Your task to perform on an android device: Is it going to rain tomorrow? Image 0: 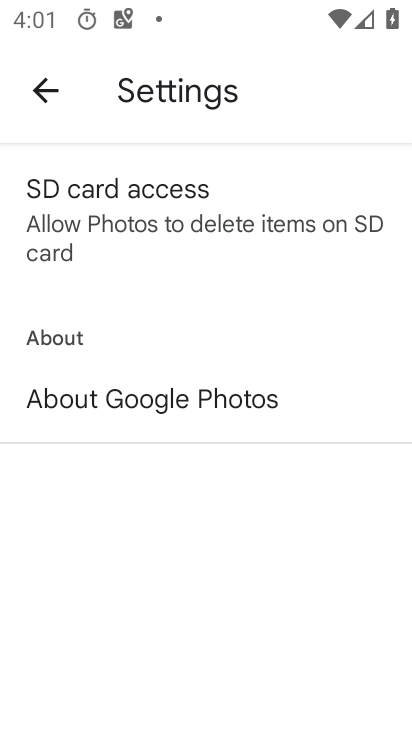
Step 0: press home button
Your task to perform on an android device: Is it going to rain tomorrow? Image 1: 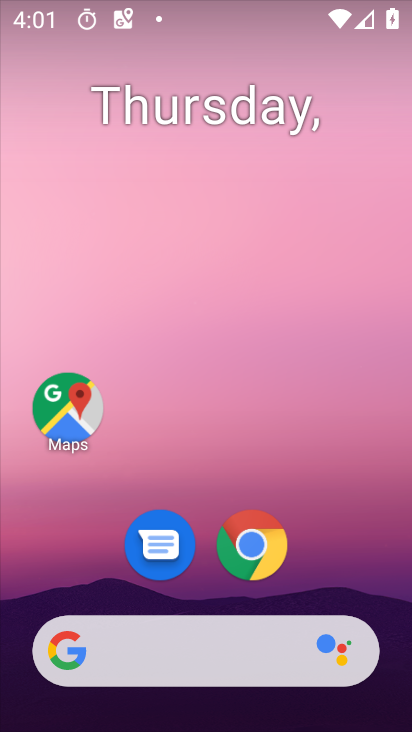
Step 1: drag from (233, 724) to (219, 211)
Your task to perform on an android device: Is it going to rain tomorrow? Image 2: 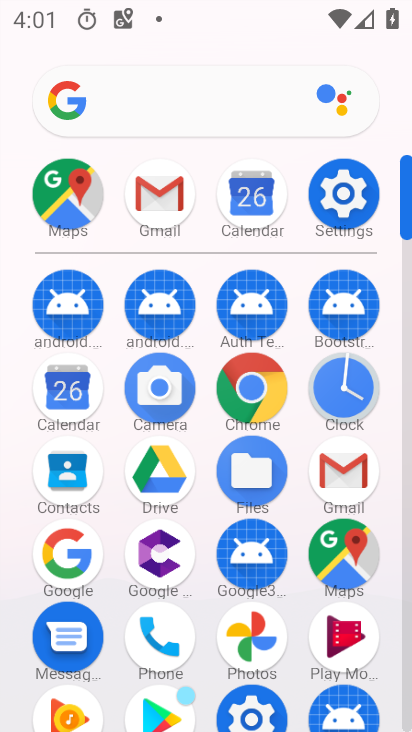
Step 2: click (65, 559)
Your task to perform on an android device: Is it going to rain tomorrow? Image 3: 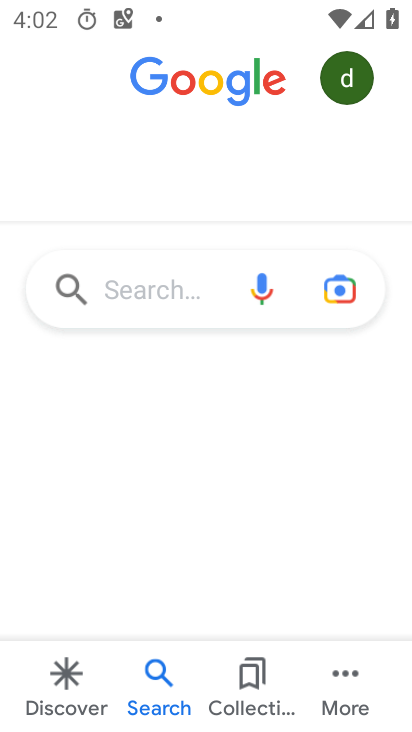
Step 3: click (134, 282)
Your task to perform on an android device: Is it going to rain tomorrow? Image 4: 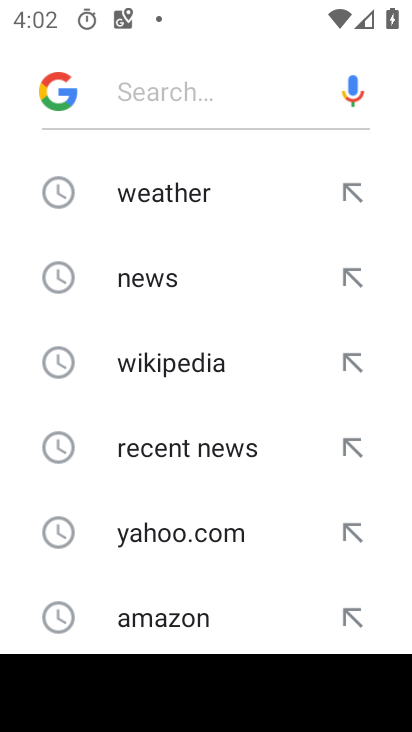
Step 4: click (156, 191)
Your task to perform on an android device: Is it going to rain tomorrow? Image 5: 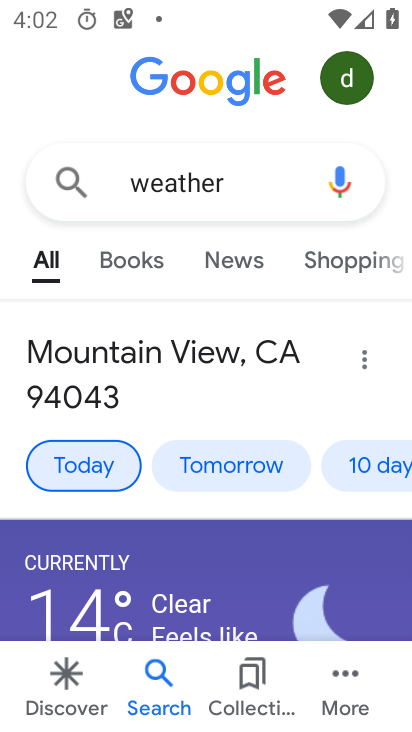
Step 5: click (209, 459)
Your task to perform on an android device: Is it going to rain tomorrow? Image 6: 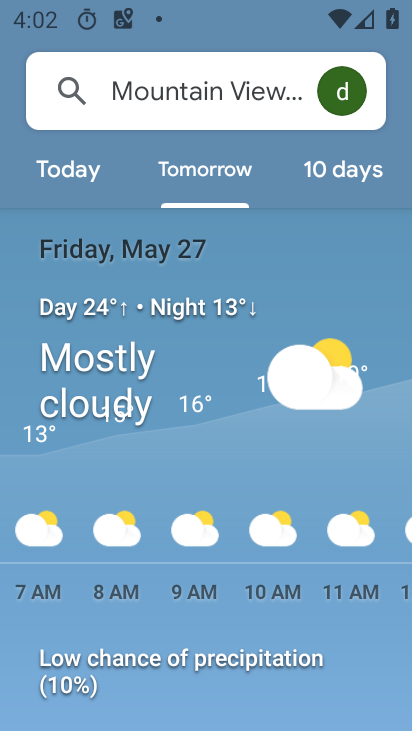
Step 6: task complete